Your task to perform on an android device: star an email in the gmail app Image 0: 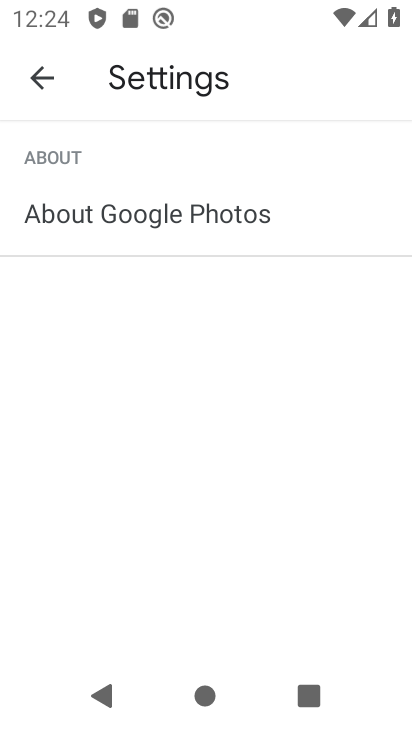
Step 0: press home button
Your task to perform on an android device: star an email in the gmail app Image 1: 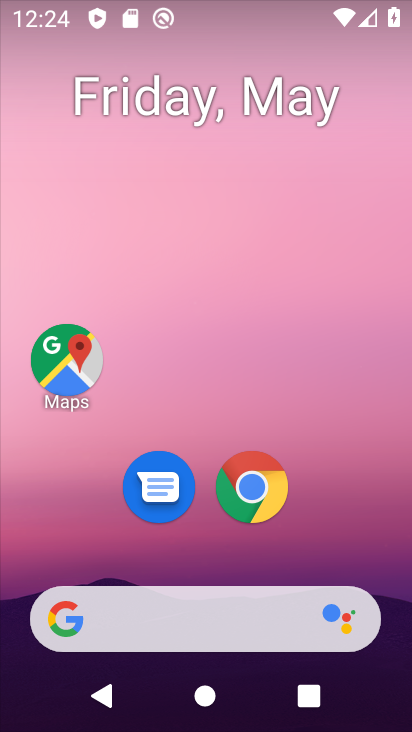
Step 1: drag from (152, 587) to (274, 140)
Your task to perform on an android device: star an email in the gmail app Image 2: 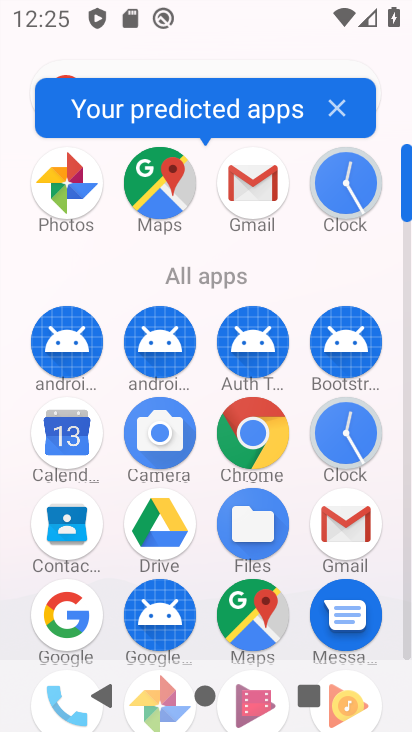
Step 2: click (330, 525)
Your task to perform on an android device: star an email in the gmail app Image 3: 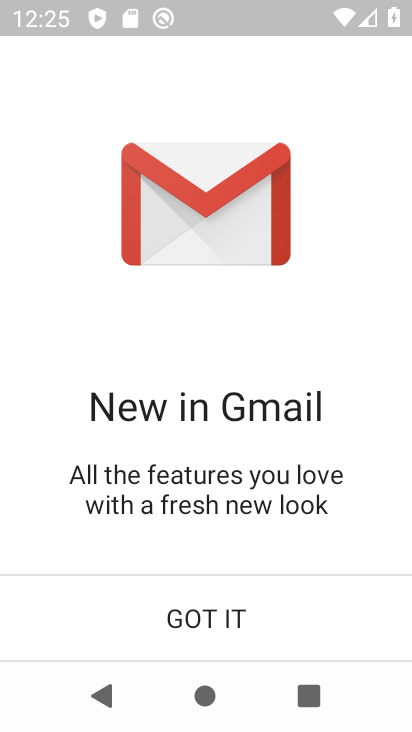
Step 3: click (247, 609)
Your task to perform on an android device: star an email in the gmail app Image 4: 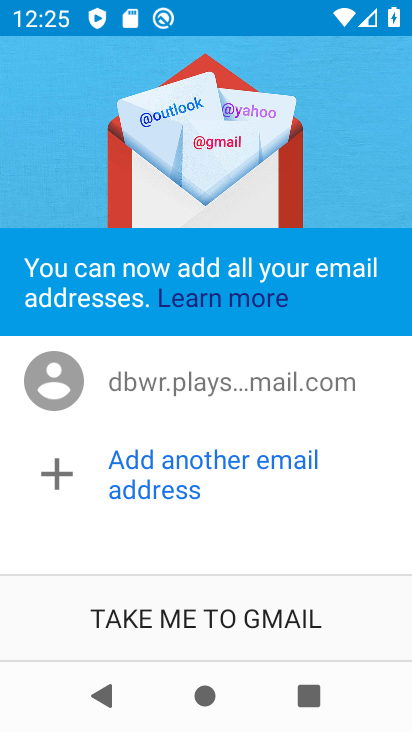
Step 4: click (296, 641)
Your task to perform on an android device: star an email in the gmail app Image 5: 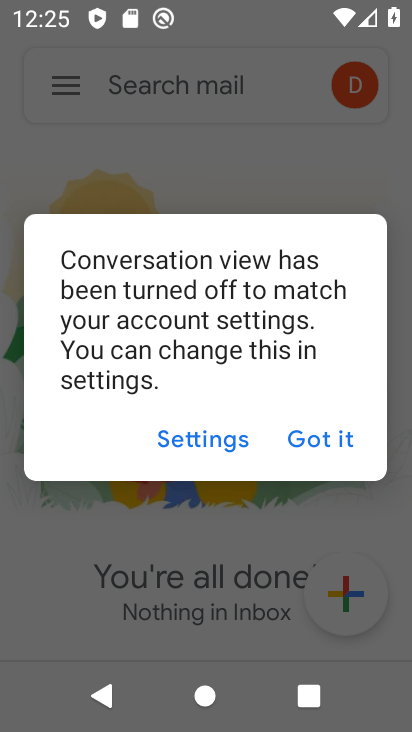
Step 5: click (333, 448)
Your task to perform on an android device: star an email in the gmail app Image 6: 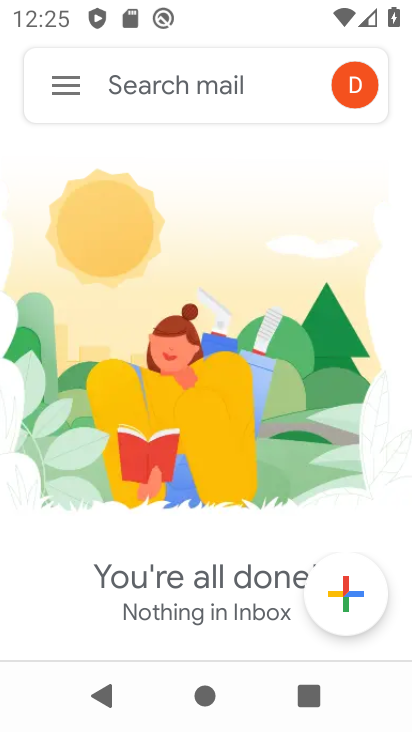
Step 6: click (67, 92)
Your task to perform on an android device: star an email in the gmail app Image 7: 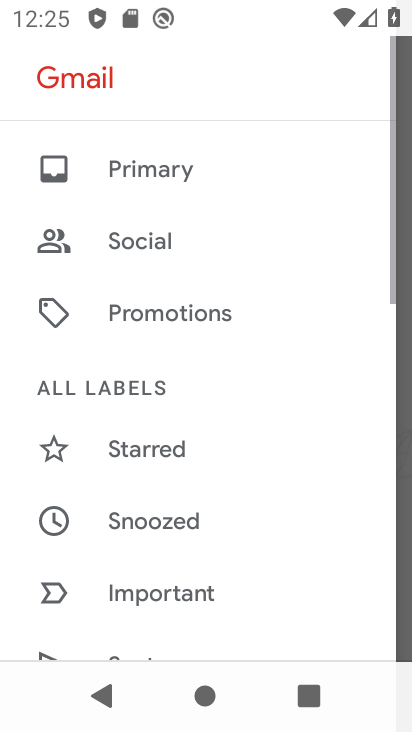
Step 7: drag from (98, 533) to (230, 198)
Your task to perform on an android device: star an email in the gmail app Image 8: 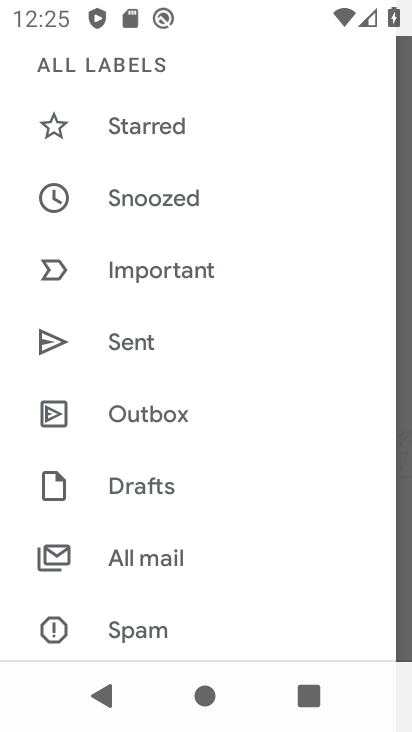
Step 8: click (169, 570)
Your task to perform on an android device: star an email in the gmail app Image 9: 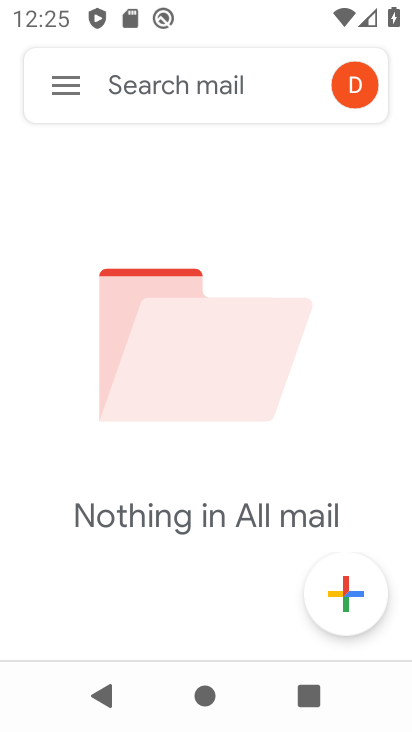
Step 9: task complete